Your task to perform on an android device: Go to accessibility settings Image 0: 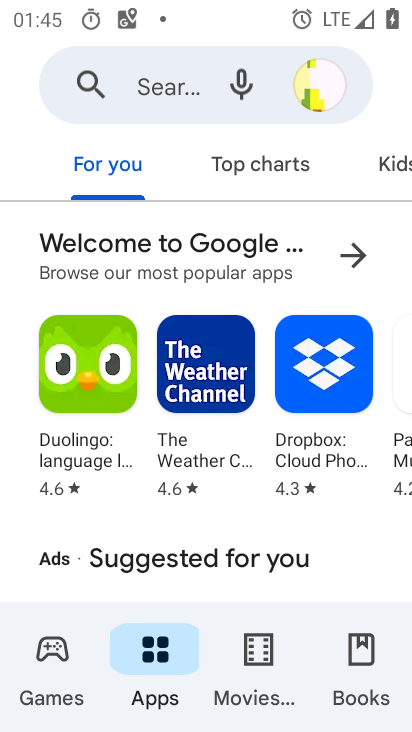
Step 0: press home button
Your task to perform on an android device: Go to accessibility settings Image 1: 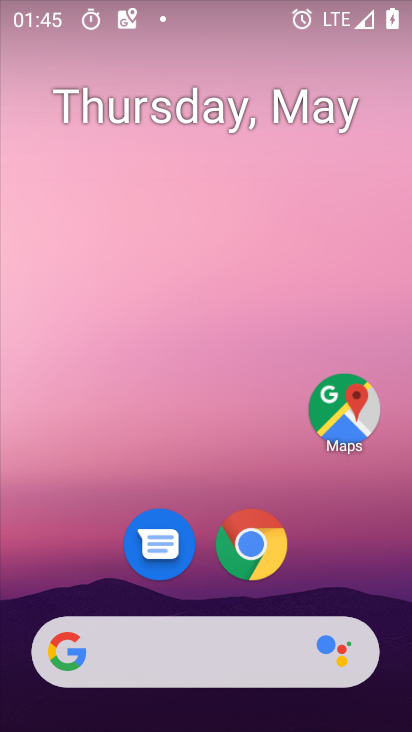
Step 1: drag from (367, 567) to (368, 132)
Your task to perform on an android device: Go to accessibility settings Image 2: 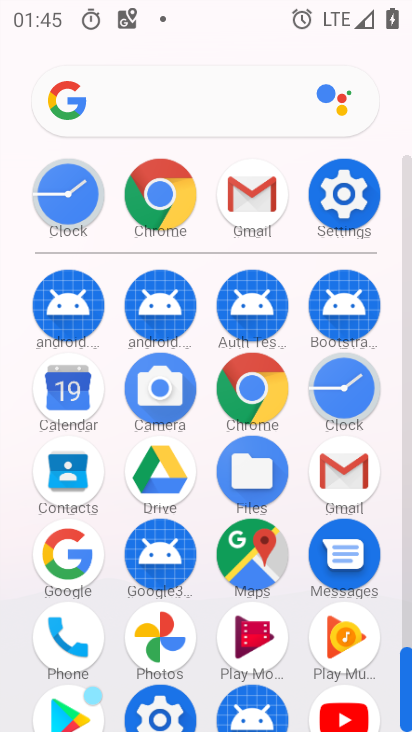
Step 2: click (354, 206)
Your task to perform on an android device: Go to accessibility settings Image 3: 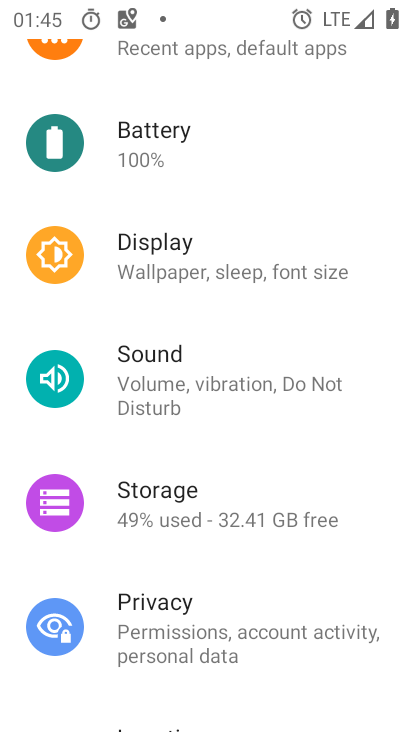
Step 3: drag from (356, 581) to (349, 405)
Your task to perform on an android device: Go to accessibility settings Image 4: 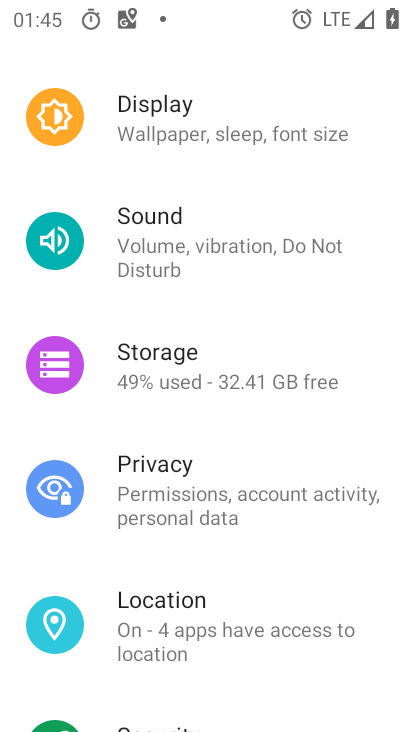
Step 4: drag from (338, 623) to (339, 462)
Your task to perform on an android device: Go to accessibility settings Image 5: 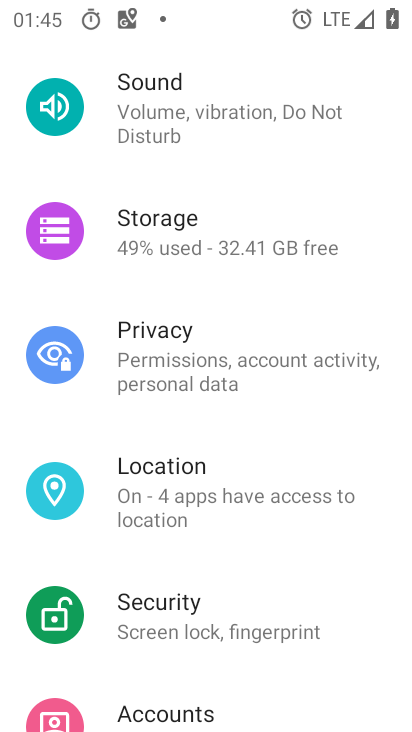
Step 5: drag from (360, 641) to (366, 466)
Your task to perform on an android device: Go to accessibility settings Image 6: 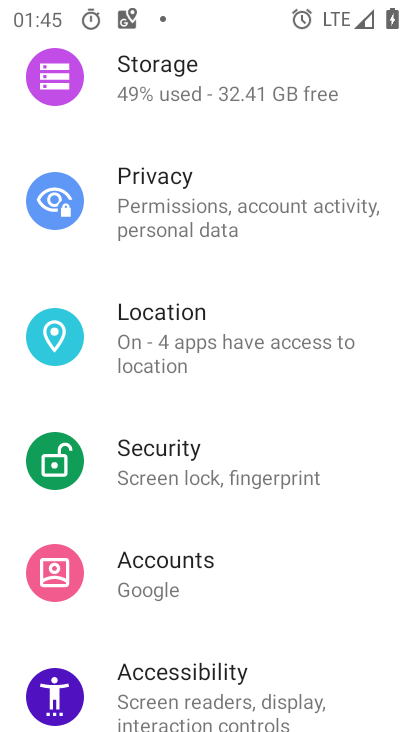
Step 6: drag from (371, 670) to (353, 493)
Your task to perform on an android device: Go to accessibility settings Image 7: 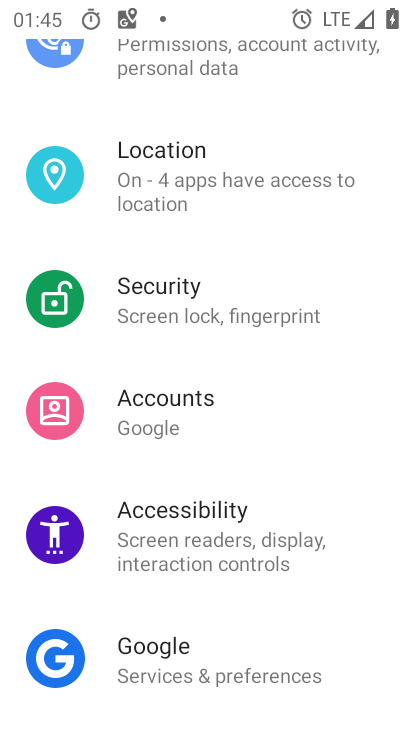
Step 7: drag from (346, 679) to (342, 496)
Your task to perform on an android device: Go to accessibility settings Image 8: 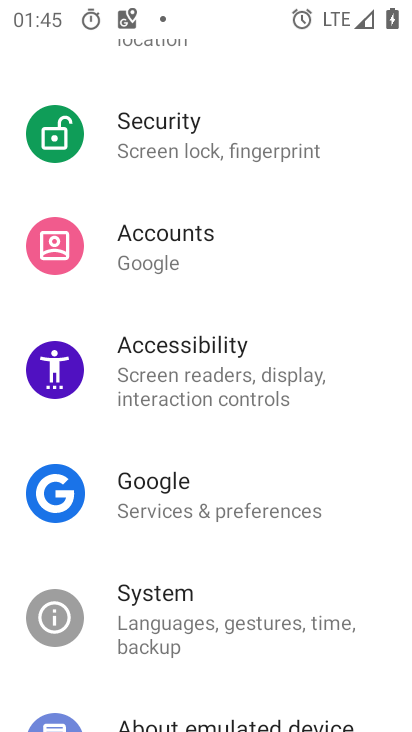
Step 8: drag from (356, 703) to (349, 511)
Your task to perform on an android device: Go to accessibility settings Image 9: 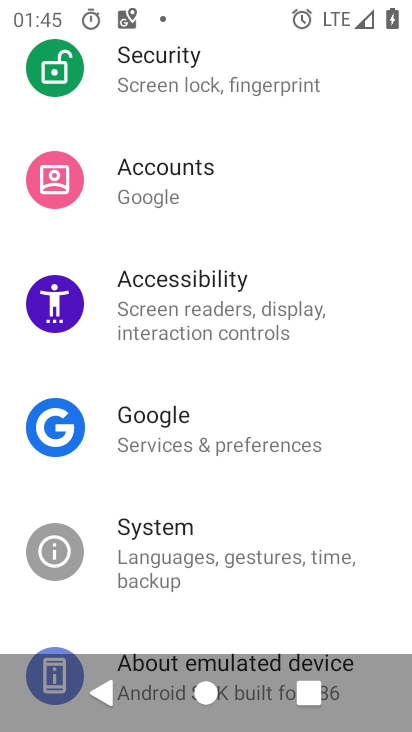
Step 9: drag from (342, 619) to (347, 469)
Your task to perform on an android device: Go to accessibility settings Image 10: 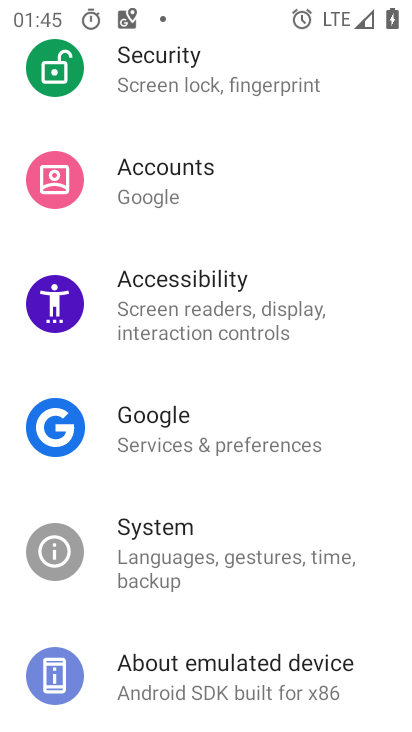
Step 10: drag from (356, 385) to (362, 538)
Your task to perform on an android device: Go to accessibility settings Image 11: 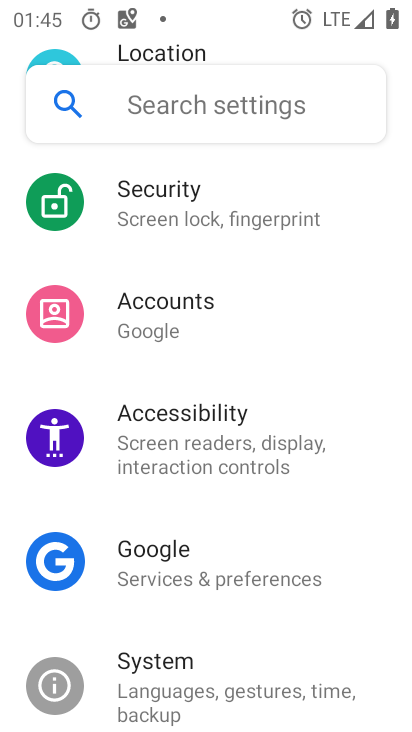
Step 11: drag from (377, 384) to (381, 508)
Your task to perform on an android device: Go to accessibility settings Image 12: 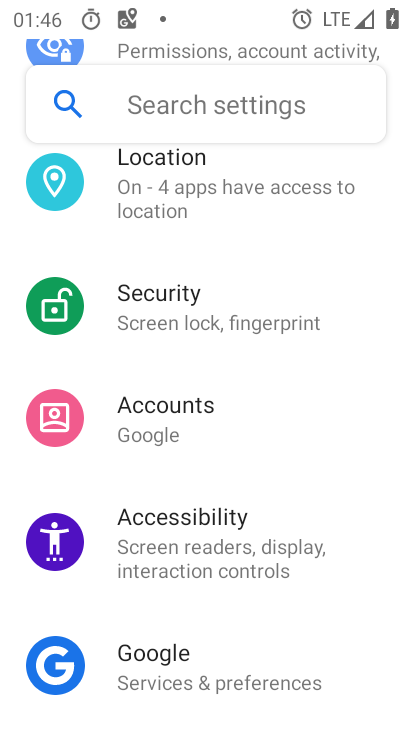
Step 12: drag from (372, 280) to (368, 491)
Your task to perform on an android device: Go to accessibility settings Image 13: 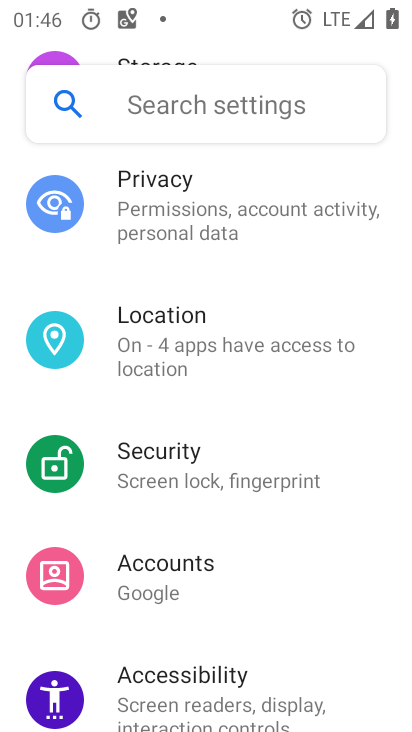
Step 13: drag from (350, 289) to (350, 470)
Your task to perform on an android device: Go to accessibility settings Image 14: 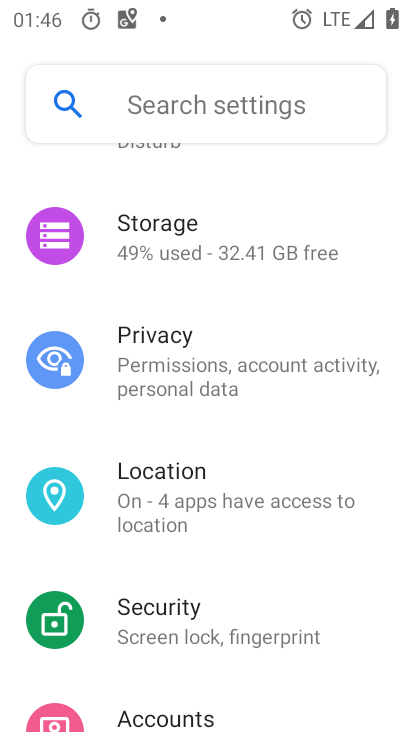
Step 14: drag from (352, 274) to (345, 405)
Your task to perform on an android device: Go to accessibility settings Image 15: 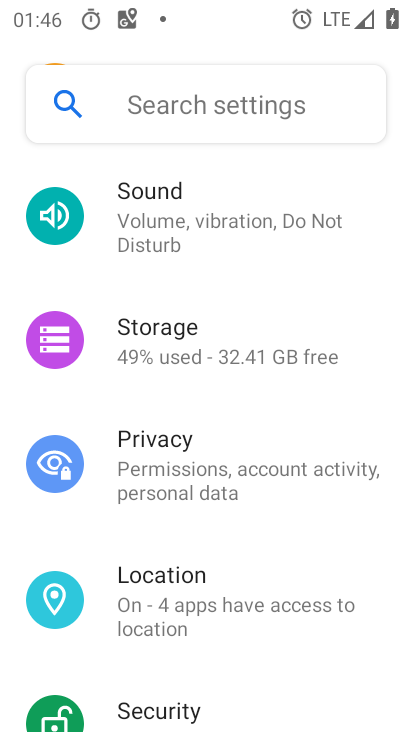
Step 15: drag from (320, 520) to (328, 323)
Your task to perform on an android device: Go to accessibility settings Image 16: 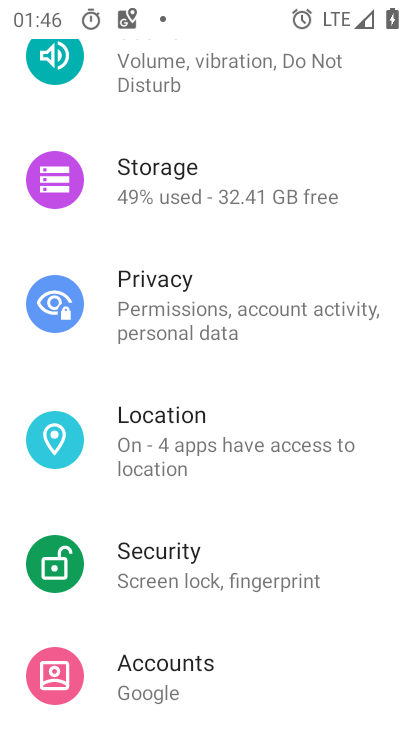
Step 16: drag from (328, 630) to (330, 420)
Your task to perform on an android device: Go to accessibility settings Image 17: 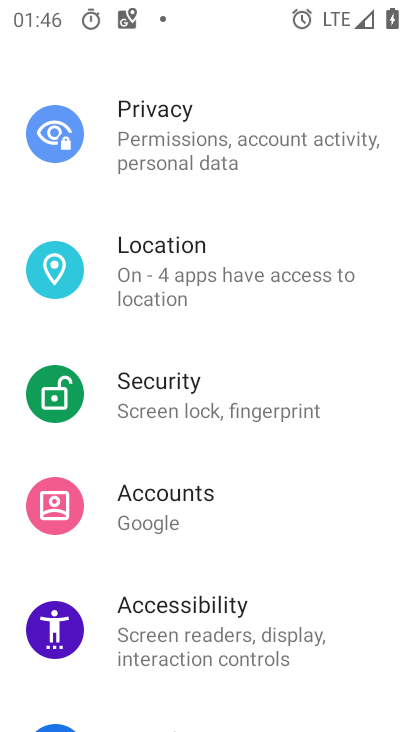
Step 17: click (264, 630)
Your task to perform on an android device: Go to accessibility settings Image 18: 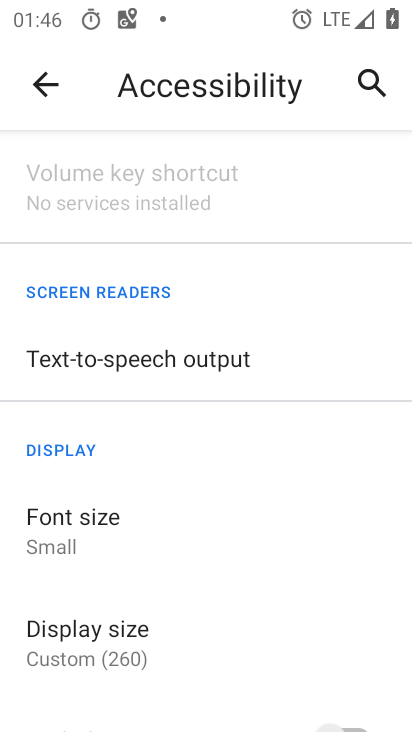
Step 18: task complete